Your task to perform on an android device: Toggle the flashlight Image 0: 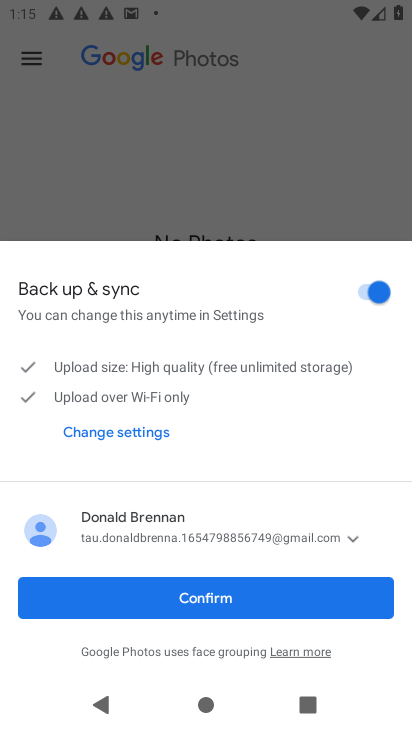
Step 0: press home button
Your task to perform on an android device: Toggle the flashlight Image 1: 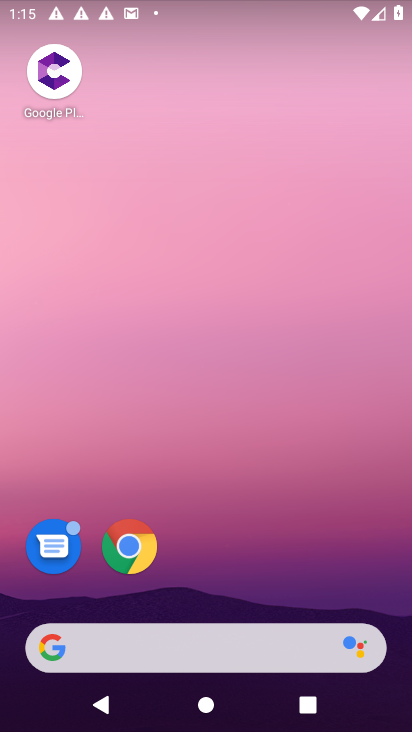
Step 1: drag from (237, 350) to (260, 102)
Your task to perform on an android device: Toggle the flashlight Image 2: 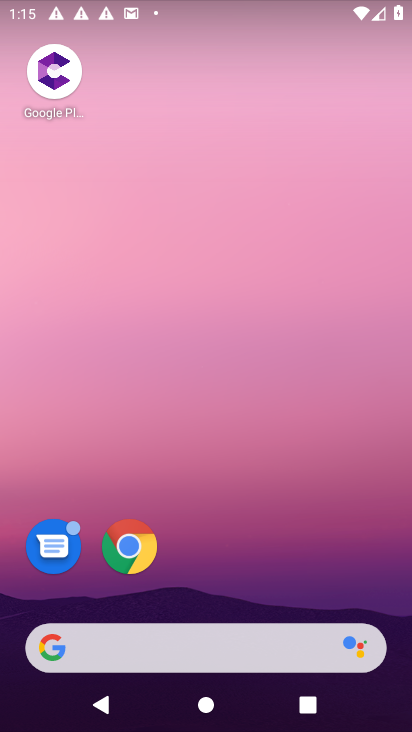
Step 2: drag from (210, 600) to (209, 86)
Your task to perform on an android device: Toggle the flashlight Image 3: 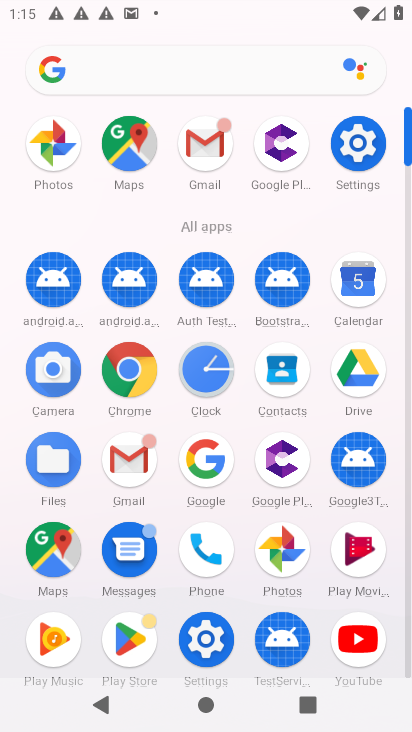
Step 3: click (355, 138)
Your task to perform on an android device: Toggle the flashlight Image 4: 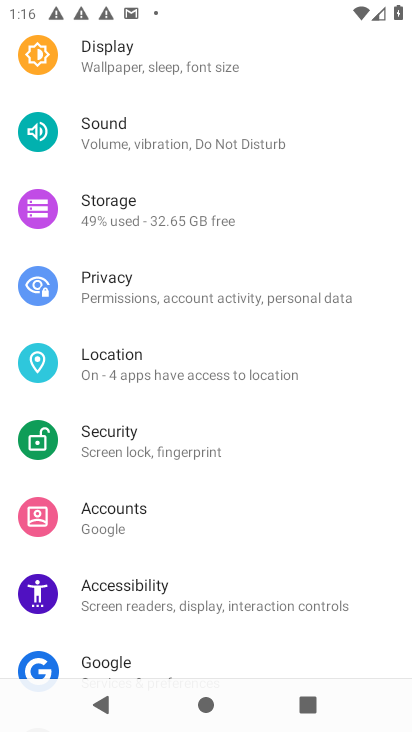
Step 4: drag from (139, 101) to (115, 701)
Your task to perform on an android device: Toggle the flashlight Image 5: 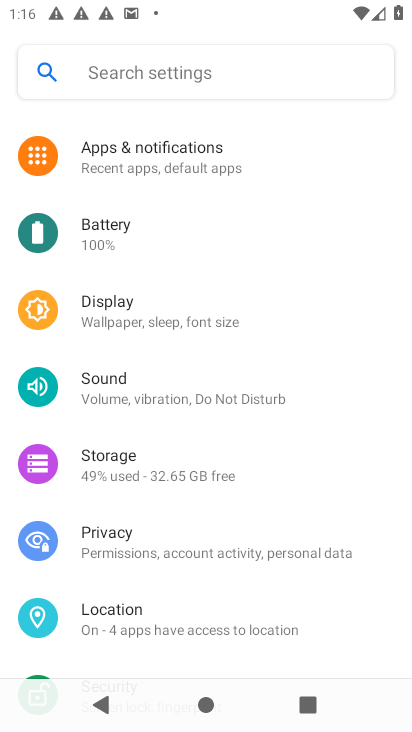
Step 5: click (130, 78)
Your task to perform on an android device: Toggle the flashlight Image 6: 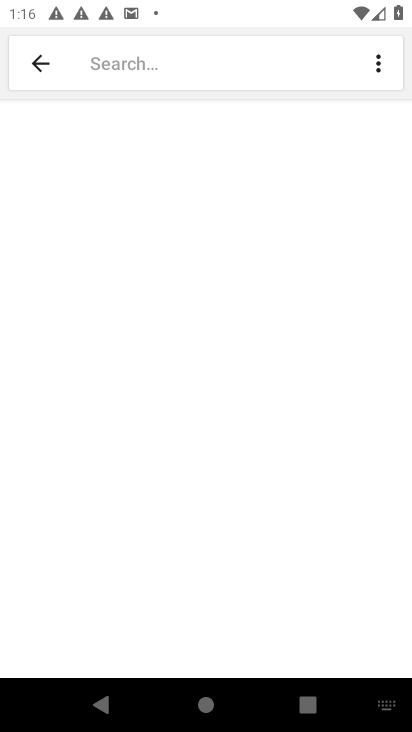
Step 6: type "flashlight"
Your task to perform on an android device: Toggle the flashlight Image 7: 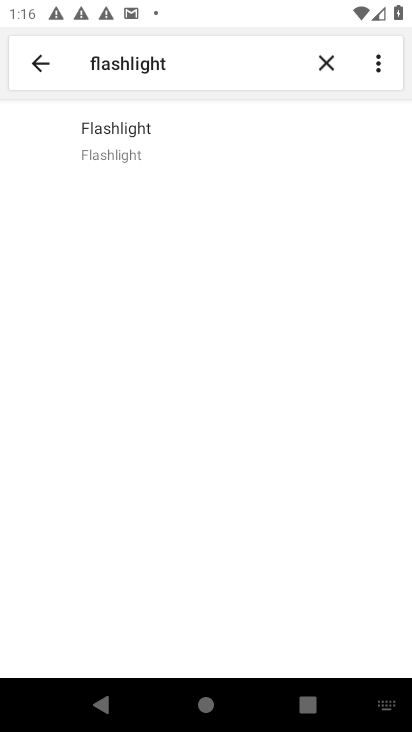
Step 7: click (112, 133)
Your task to perform on an android device: Toggle the flashlight Image 8: 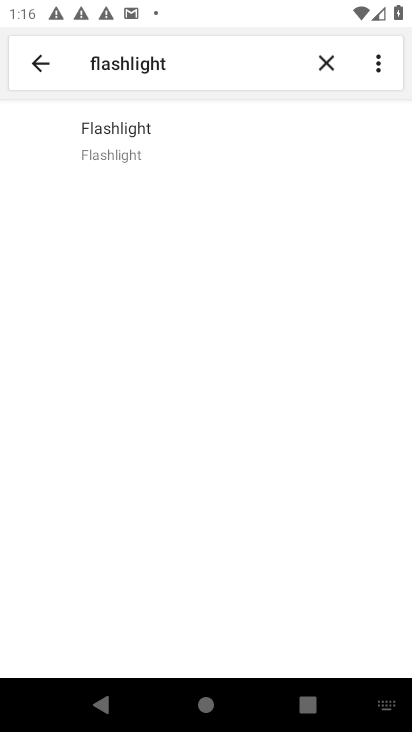
Step 8: task complete